Your task to perform on an android device: Search for Mexican restaurants on Maps Image 0: 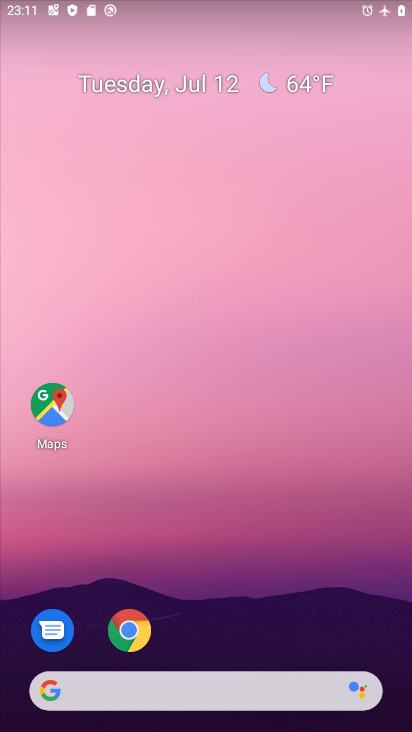
Step 0: drag from (193, 664) to (134, 32)
Your task to perform on an android device: Search for Mexican restaurants on Maps Image 1: 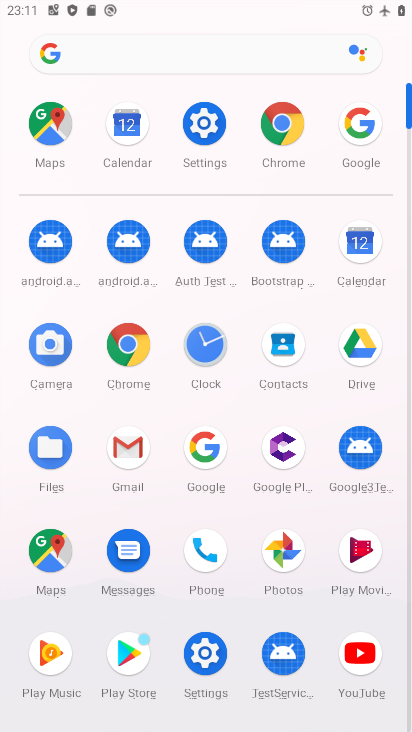
Step 1: click (31, 574)
Your task to perform on an android device: Search for Mexican restaurants on Maps Image 2: 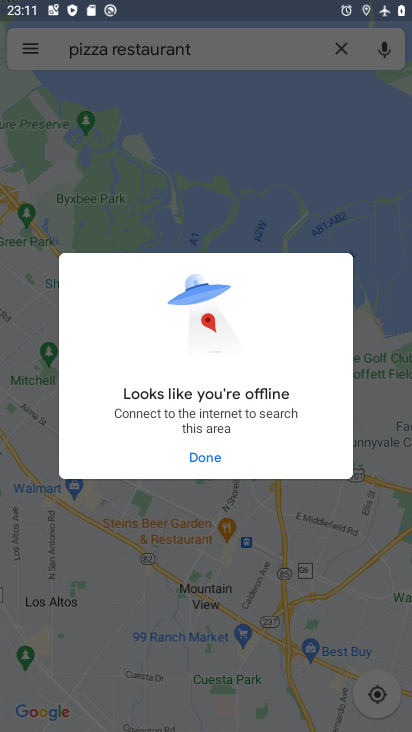
Step 2: click (201, 466)
Your task to perform on an android device: Search for Mexican restaurants on Maps Image 3: 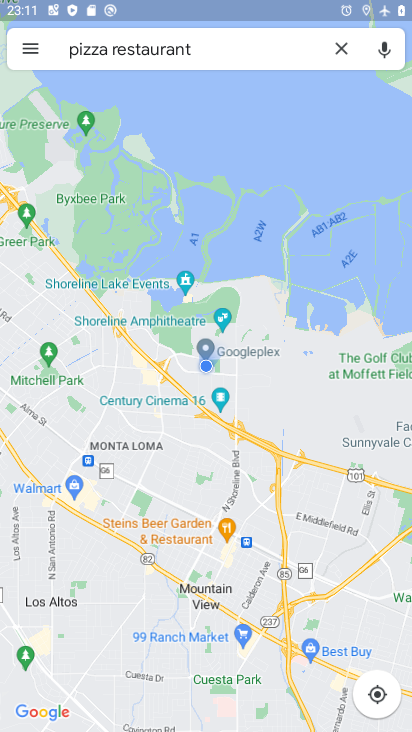
Step 3: click (342, 42)
Your task to perform on an android device: Search for Mexican restaurants on Maps Image 4: 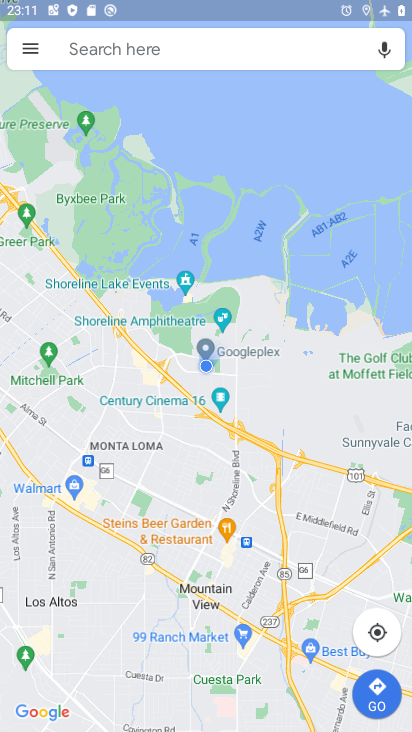
Step 4: click (163, 54)
Your task to perform on an android device: Search for Mexican restaurants on Maps Image 5: 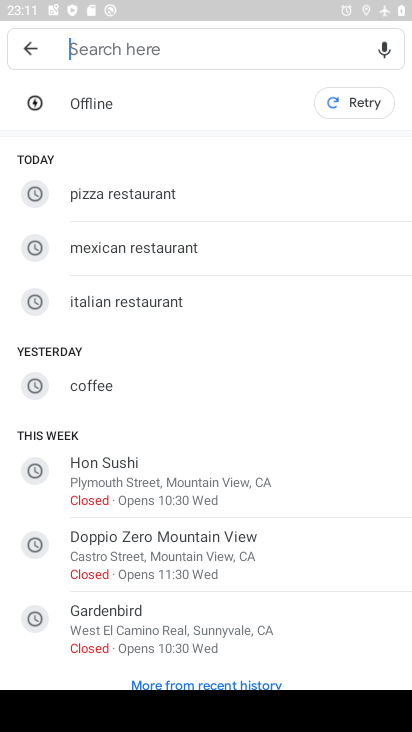
Step 5: type "Mexican restaurants"
Your task to perform on an android device: Search for Mexican restaurants on Maps Image 6: 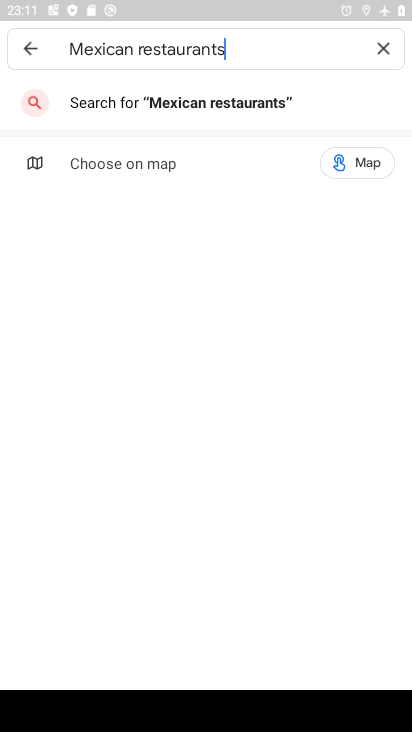
Step 6: type ""
Your task to perform on an android device: Search for Mexican restaurants on Maps Image 7: 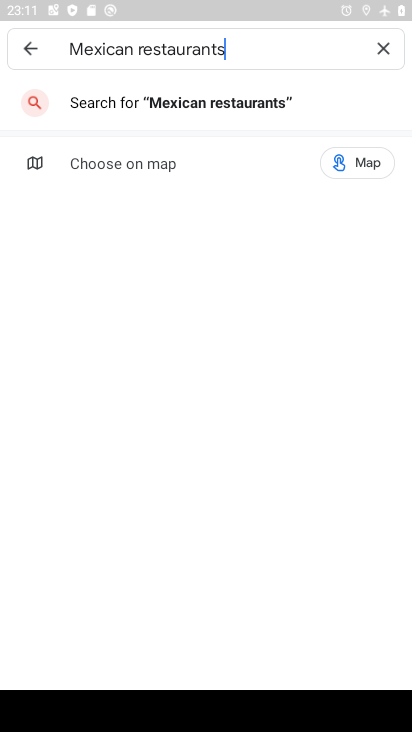
Step 7: click (121, 104)
Your task to perform on an android device: Search for Mexican restaurants on Maps Image 8: 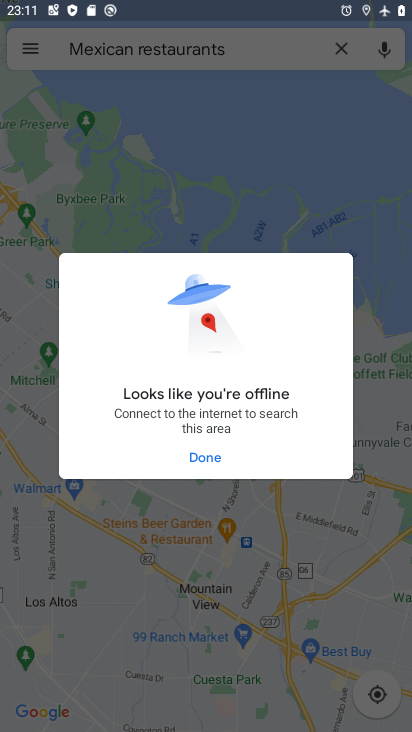
Step 8: task complete